Your task to perform on an android device: Open Android settings Image 0: 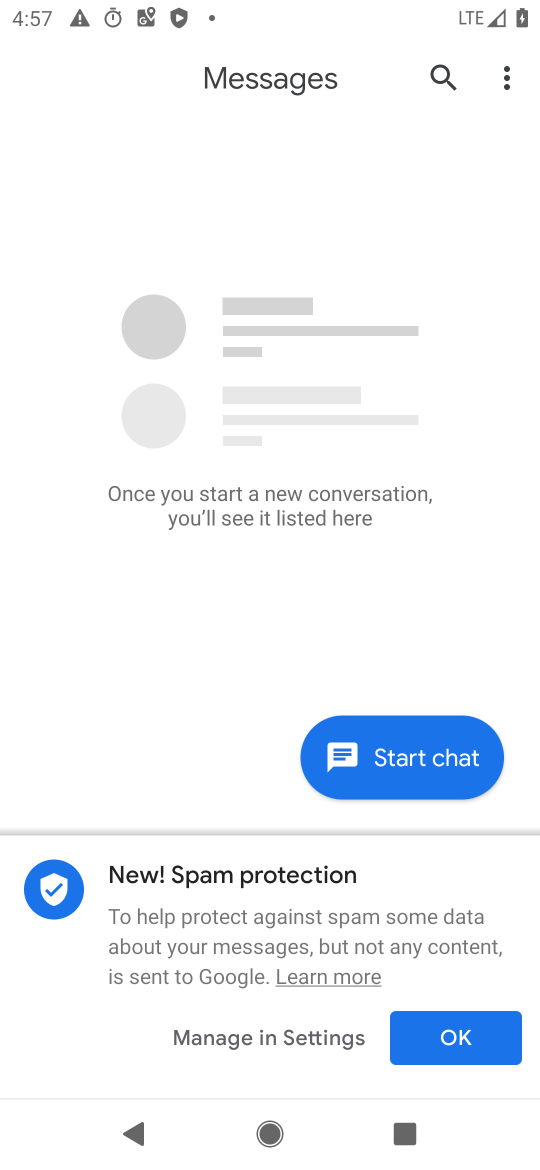
Step 0: press home button
Your task to perform on an android device: Open Android settings Image 1: 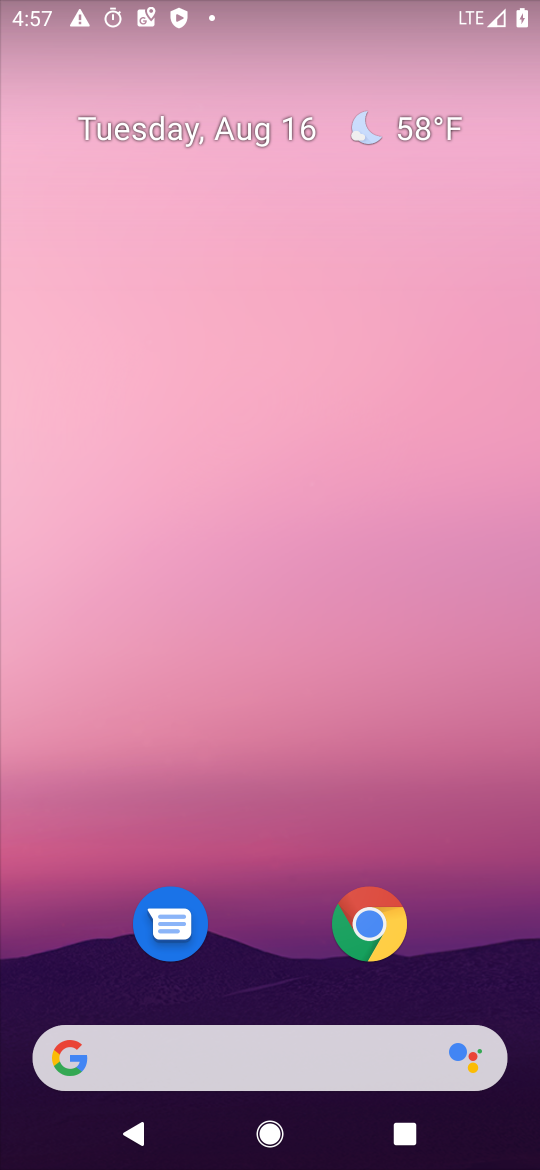
Step 1: drag from (252, 984) to (348, 30)
Your task to perform on an android device: Open Android settings Image 2: 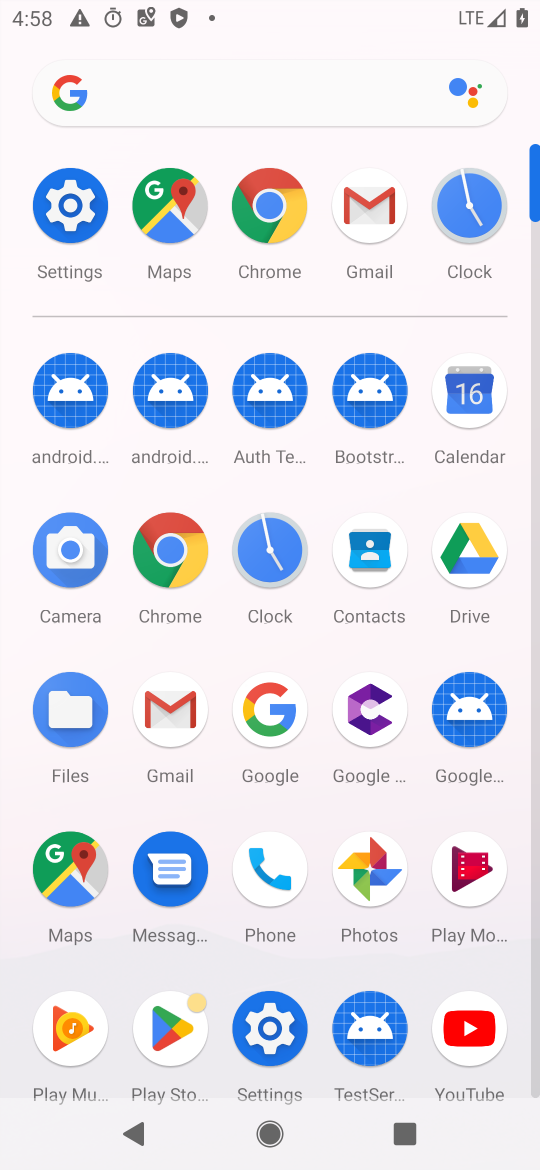
Step 2: click (63, 171)
Your task to perform on an android device: Open Android settings Image 3: 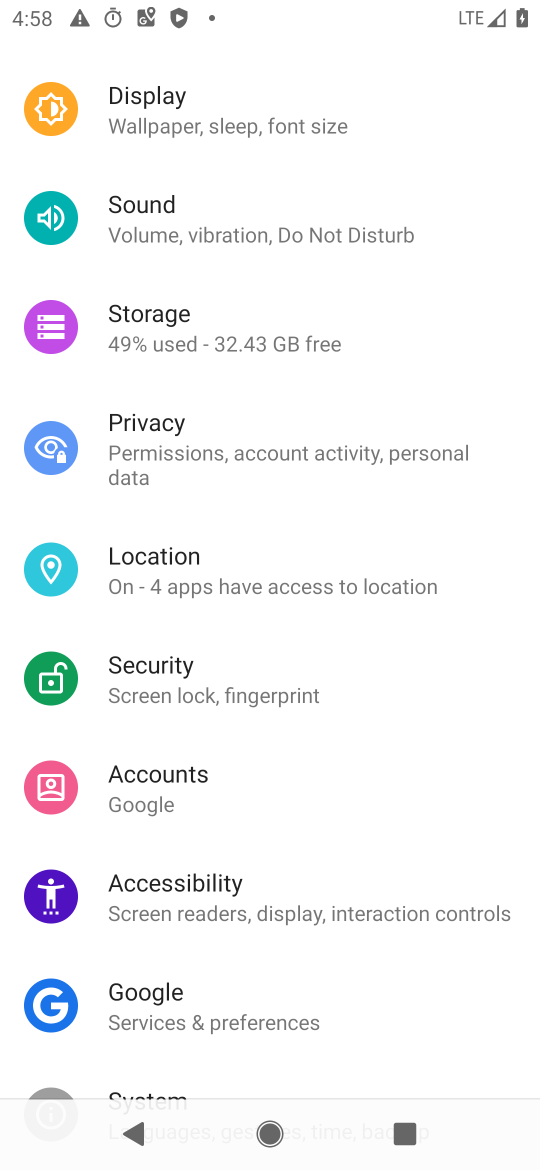
Step 3: task complete